Your task to perform on an android device: turn on translation in the chrome app Image 0: 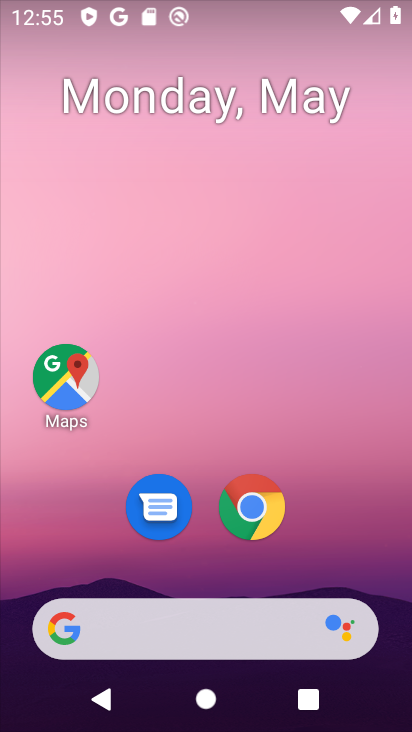
Step 0: click (271, 516)
Your task to perform on an android device: turn on translation in the chrome app Image 1: 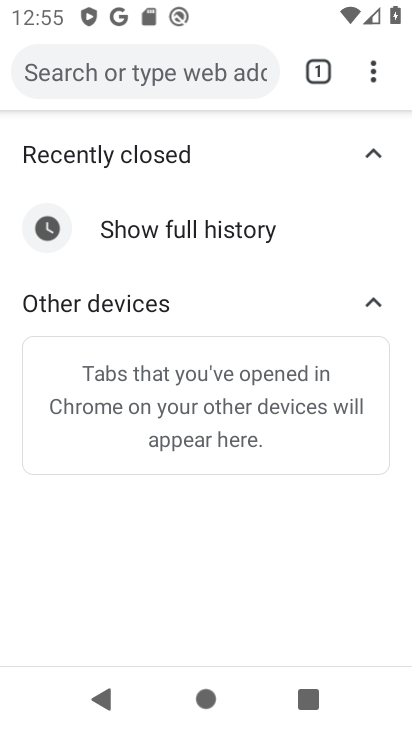
Step 1: drag from (382, 81) to (254, 511)
Your task to perform on an android device: turn on translation in the chrome app Image 2: 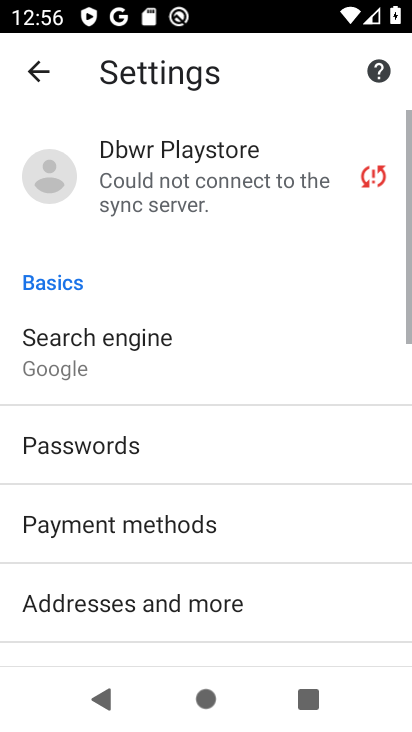
Step 2: drag from (204, 584) to (296, 138)
Your task to perform on an android device: turn on translation in the chrome app Image 3: 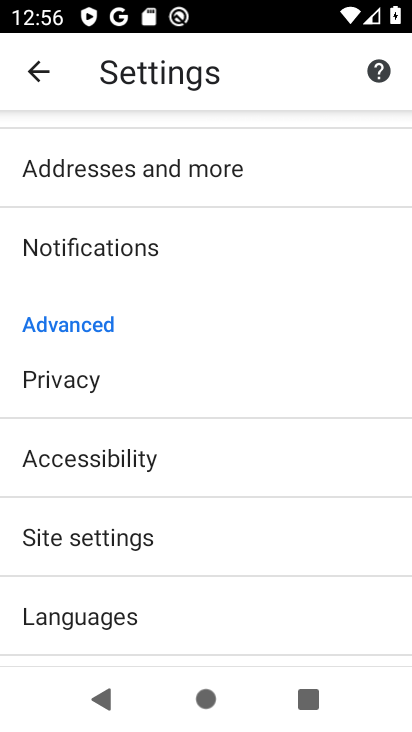
Step 3: click (198, 628)
Your task to perform on an android device: turn on translation in the chrome app Image 4: 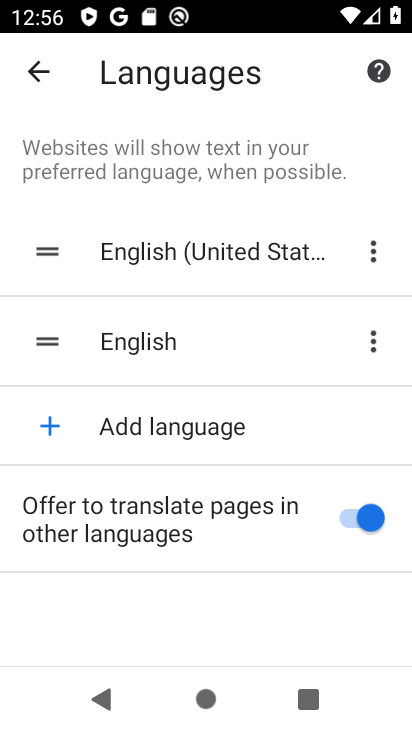
Step 4: task complete